Your task to perform on an android device: Open Google Chrome and open the bookmarks view Image 0: 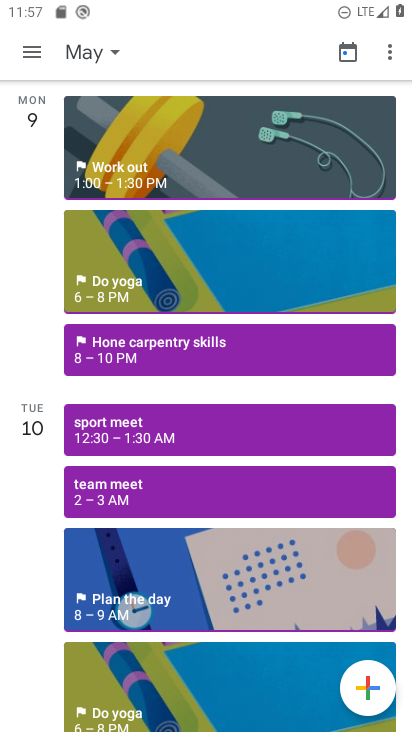
Step 0: press home button
Your task to perform on an android device: Open Google Chrome and open the bookmarks view Image 1: 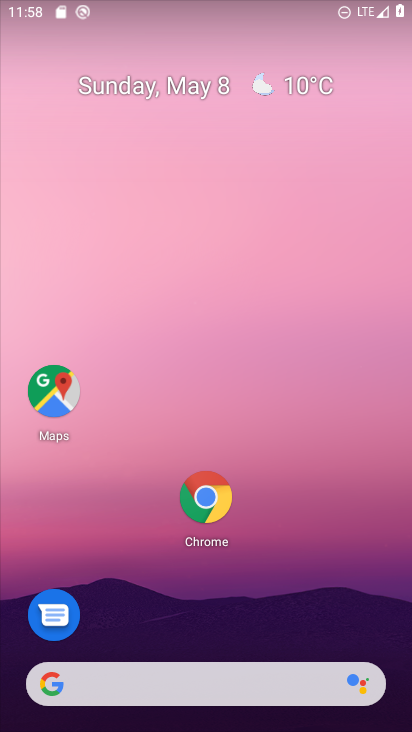
Step 1: click (199, 499)
Your task to perform on an android device: Open Google Chrome and open the bookmarks view Image 2: 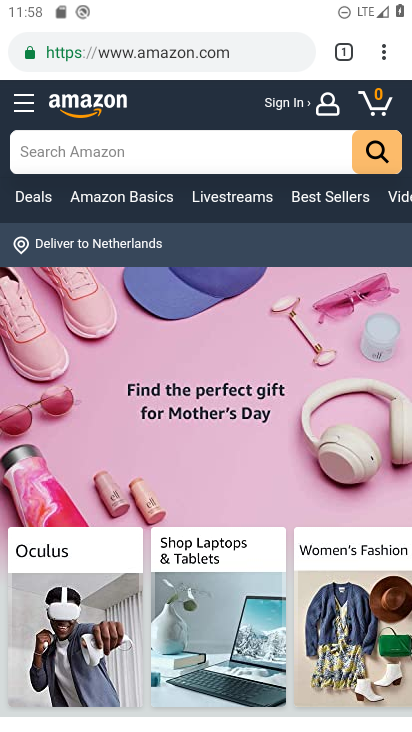
Step 2: task complete